Your task to perform on an android device: toggle airplane mode Image 0: 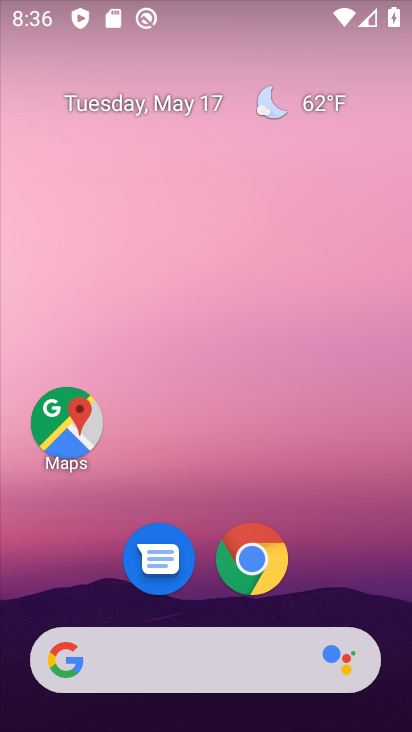
Step 0: drag from (212, 641) to (101, 29)
Your task to perform on an android device: toggle airplane mode Image 1: 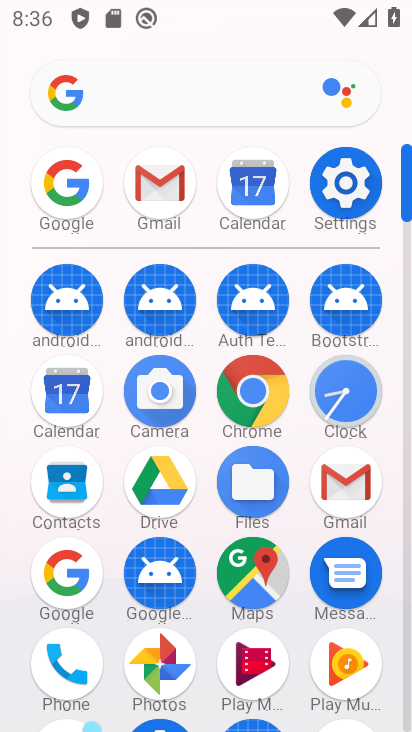
Step 1: click (359, 194)
Your task to perform on an android device: toggle airplane mode Image 2: 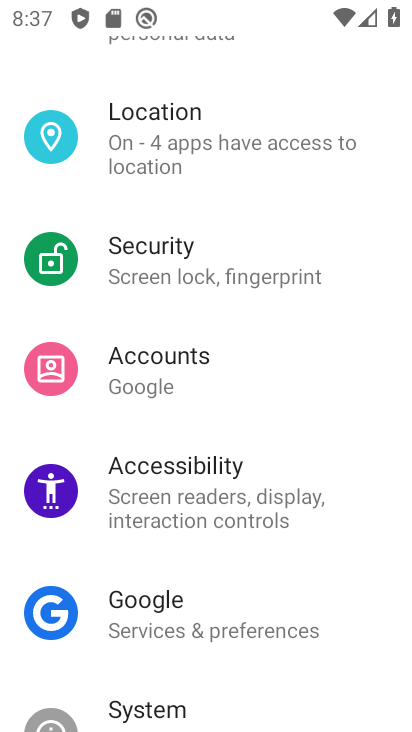
Step 2: drag from (284, 170) to (291, 674)
Your task to perform on an android device: toggle airplane mode Image 3: 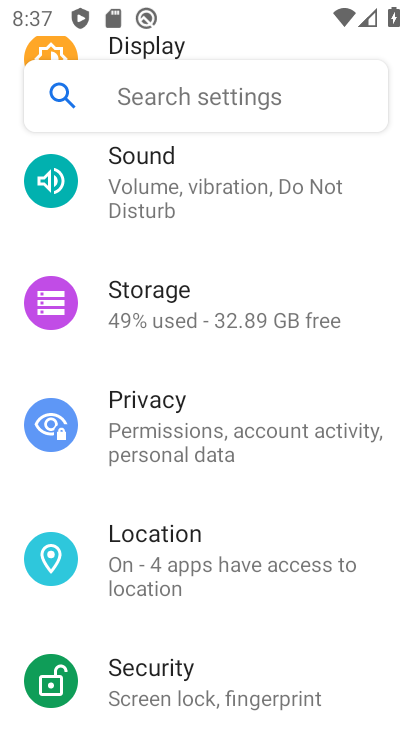
Step 3: drag from (185, 248) to (195, 623)
Your task to perform on an android device: toggle airplane mode Image 4: 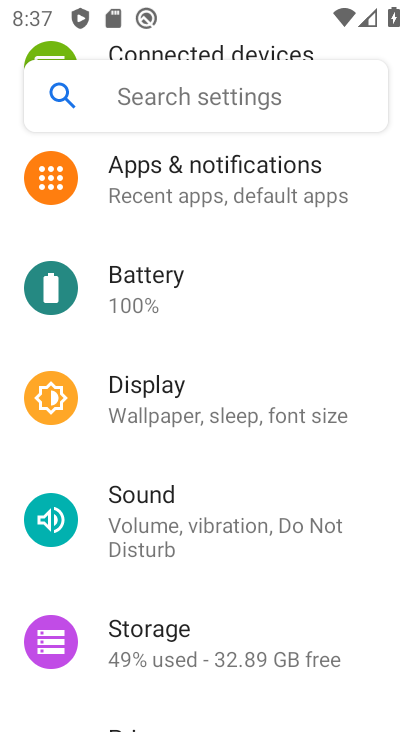
Step 4: drag from (138, 190) to (225, 689)
Your task to perform on an android device: toggle airplane mode Image 5: 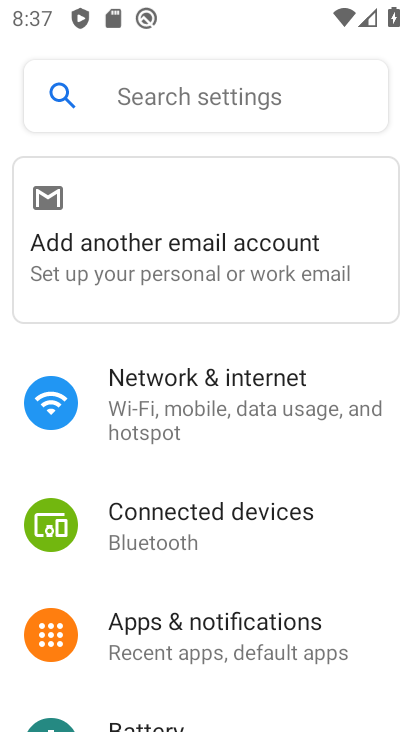
Step 5: click (176, 408)
Your task to perform on an android device: toggle airplane mode Image 6: 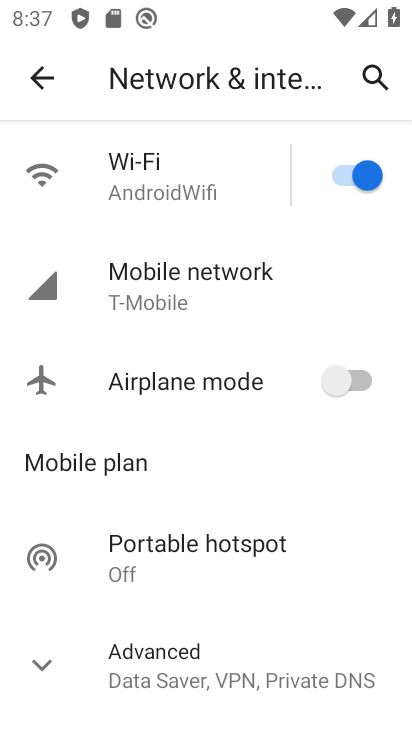
Step 6: click (348, 379)
Your task to perform on an android device: toggle airplane mode Image 7: 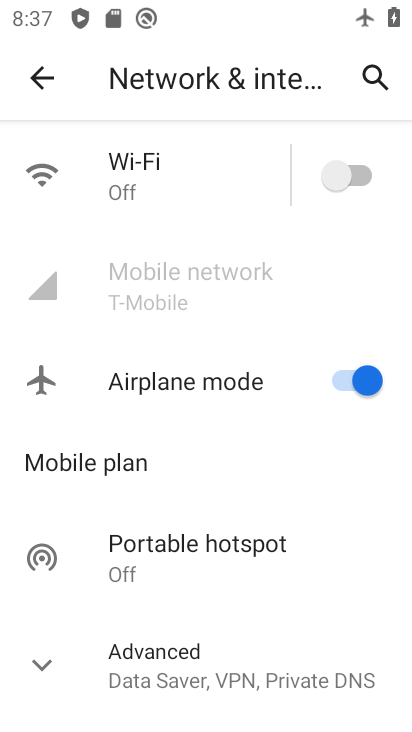
Step 7: click (358, 377)
Your task to perform on an android device: toggle airplane mode Image 8: 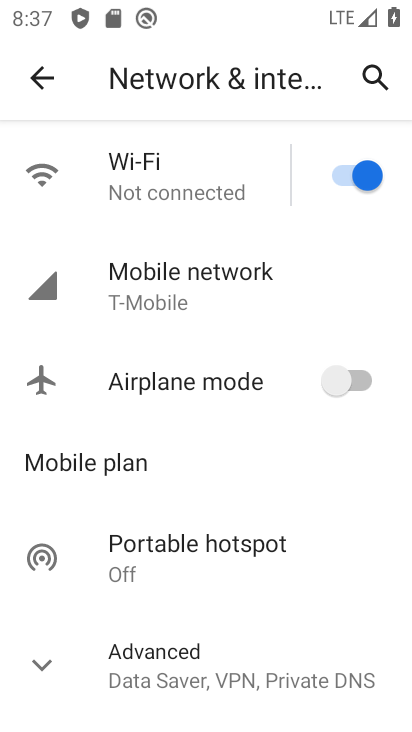
Step 8: task complete